Your task to perform on an android device: all mails in gmail Image 0: 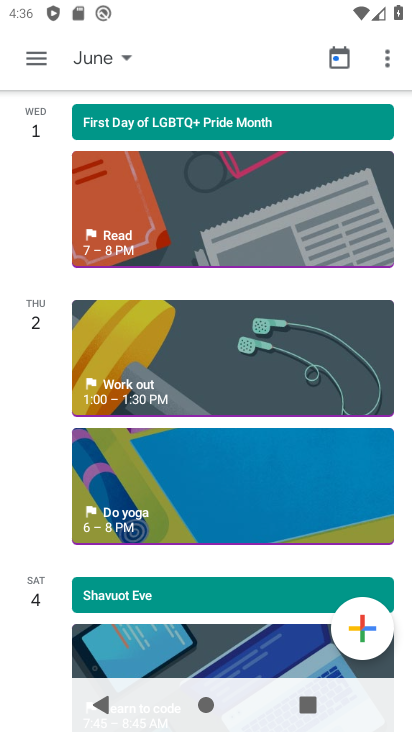
Step 0: press home button
Your task to perform on an android device: all mails in gmail Image 1: 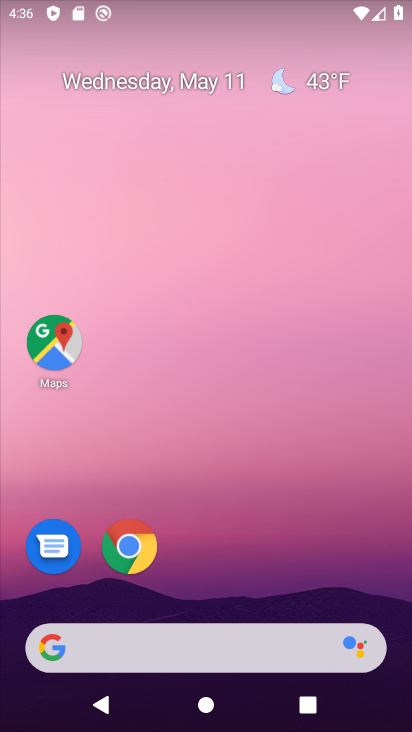
Step 1: drag from (215, 625) to (247, 181)
Your task to perform on an android device: all mails in gmail Image 2: 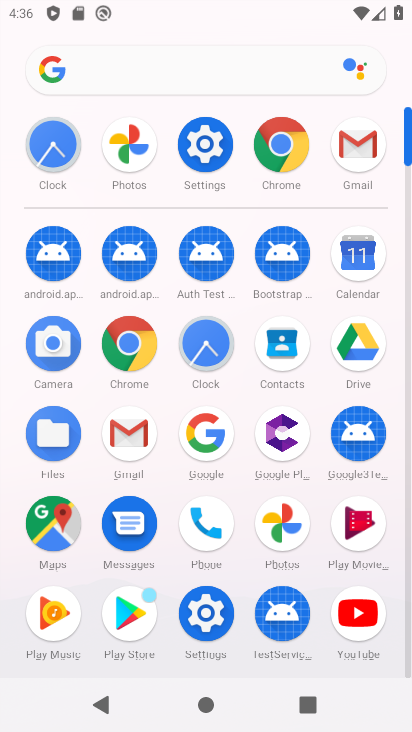
Step 2: click (203, 606)
Your task to perform on an android device: all mails in gmail Image 3: 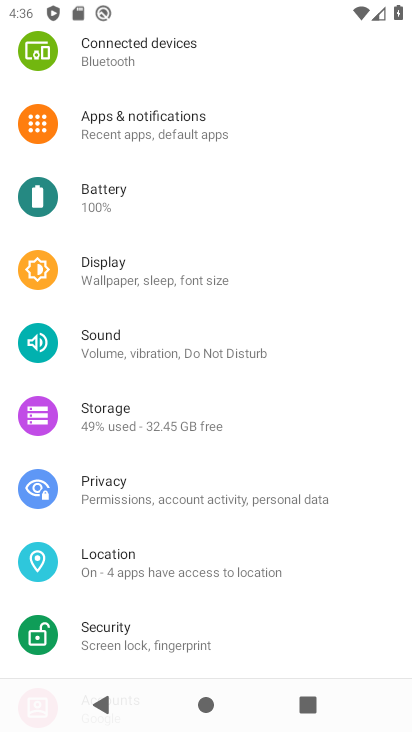
Step 3: press home button
Your task to perform on an android device: all mails in gmail Image 4: 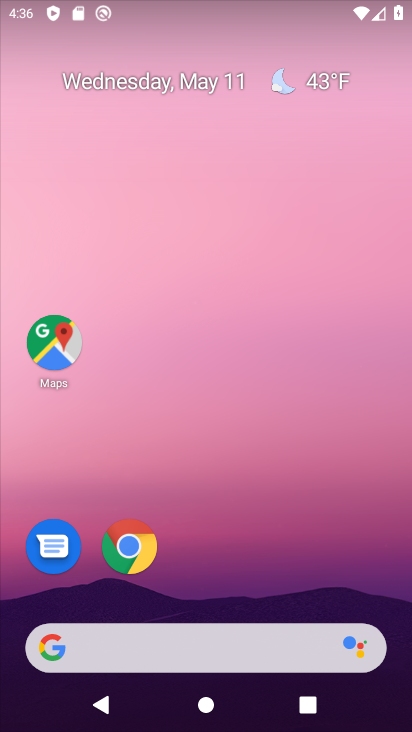
Step 4: drag from (247, 607) to (268, 141)
Your task to perform on an android device: all mails in gmail Image 5: 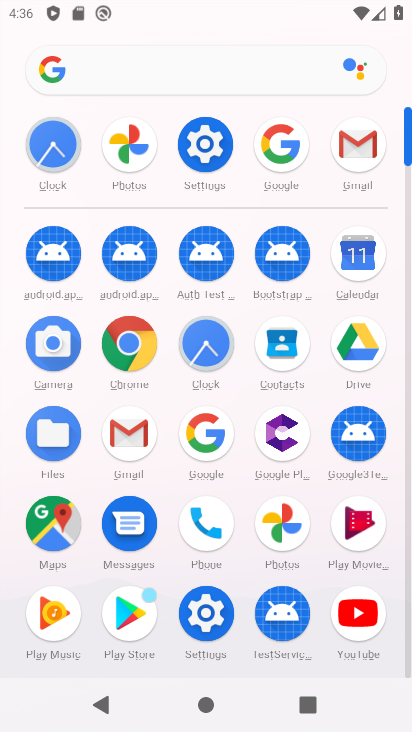
Step 5: click (135, 439)
Your task to perform on an android device: all mails in gmail Image 6: 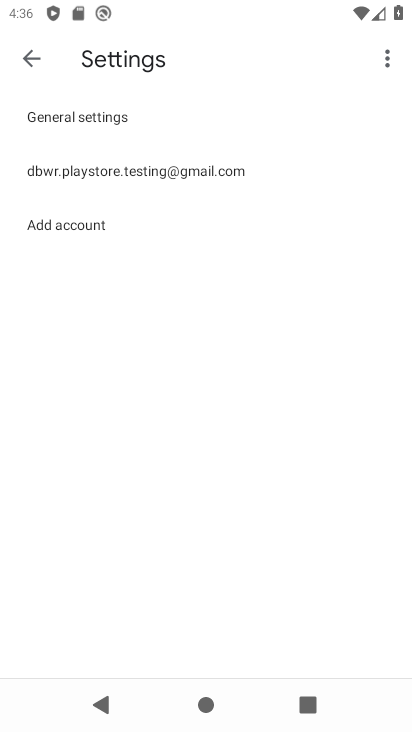
Step 6: click (31, 52)
Your task to perform on an android device: all mails in gmail Image 7: 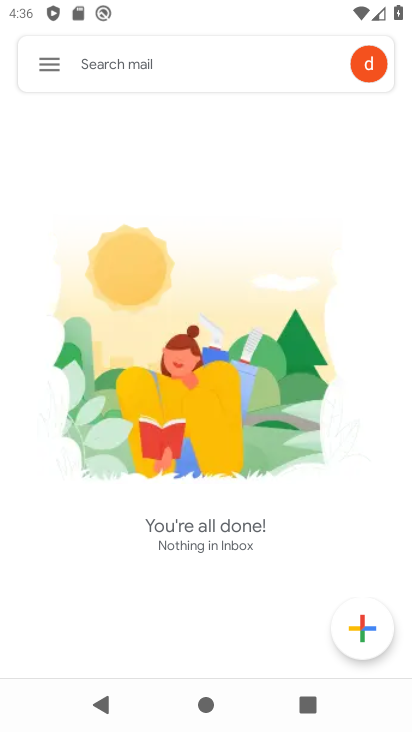
Step 7: click (50, 65)
Your task to perform on an android device: all mails in gmail Image 8: 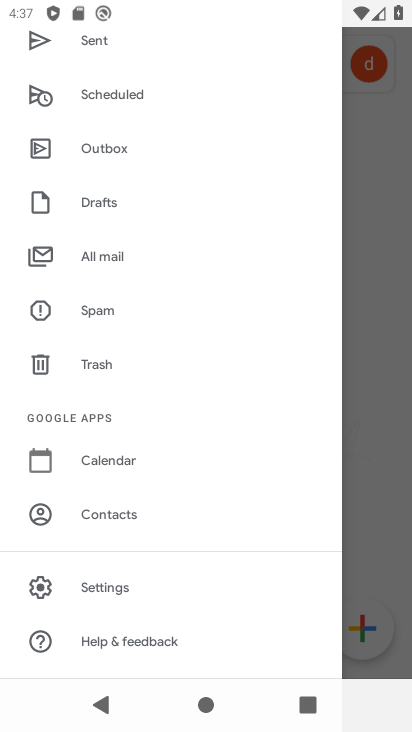
Step 8: click (86, 258)
Your task to perform on an android device: all mails in gmail Image 9: 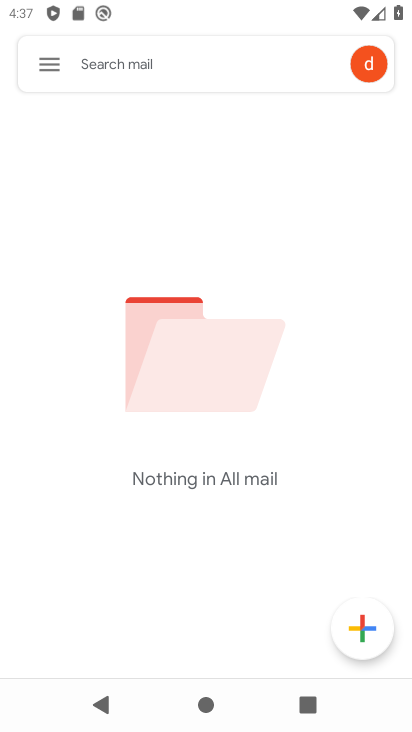
Step 9: task complete